Your task to perform on an android device: Open my contact list Image 0: 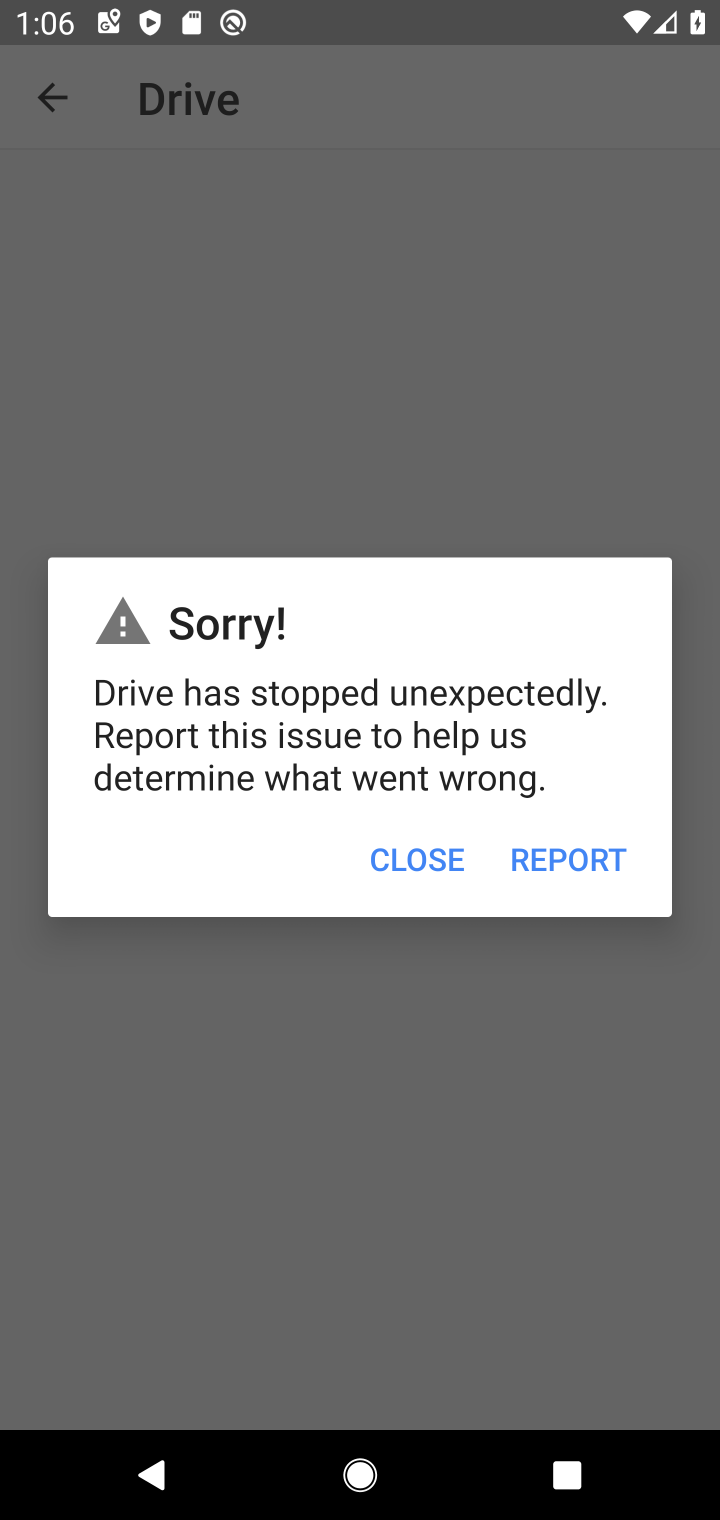
Step 0: click (230, 309)
Your task to perform on an android device: Open my contact list Image 1: 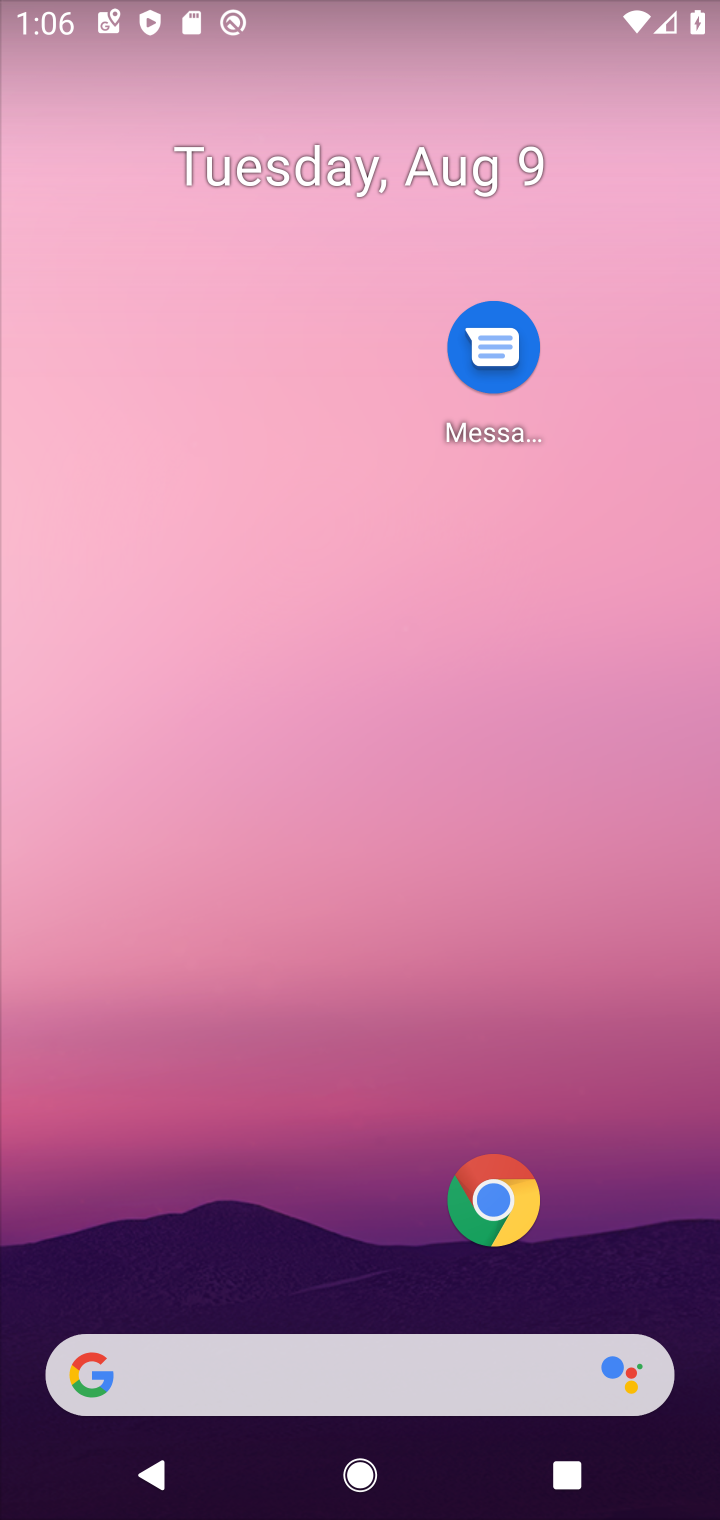
Step 1: click (398, 845)
Your task to perform on an android device: Open my contact list Image 2: 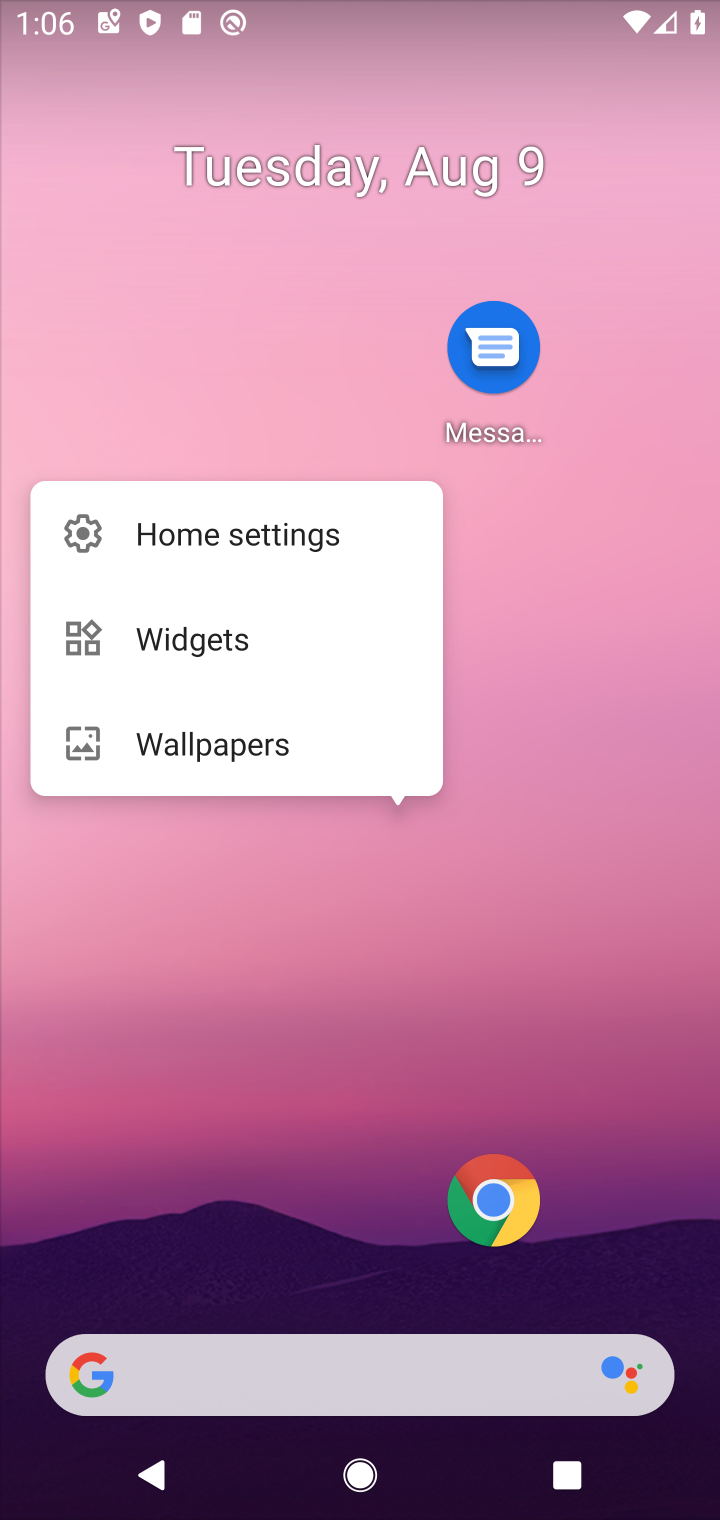
Step 2: click (296, 1156)
Your task to perform on an android device: Open my contact list Image 3: 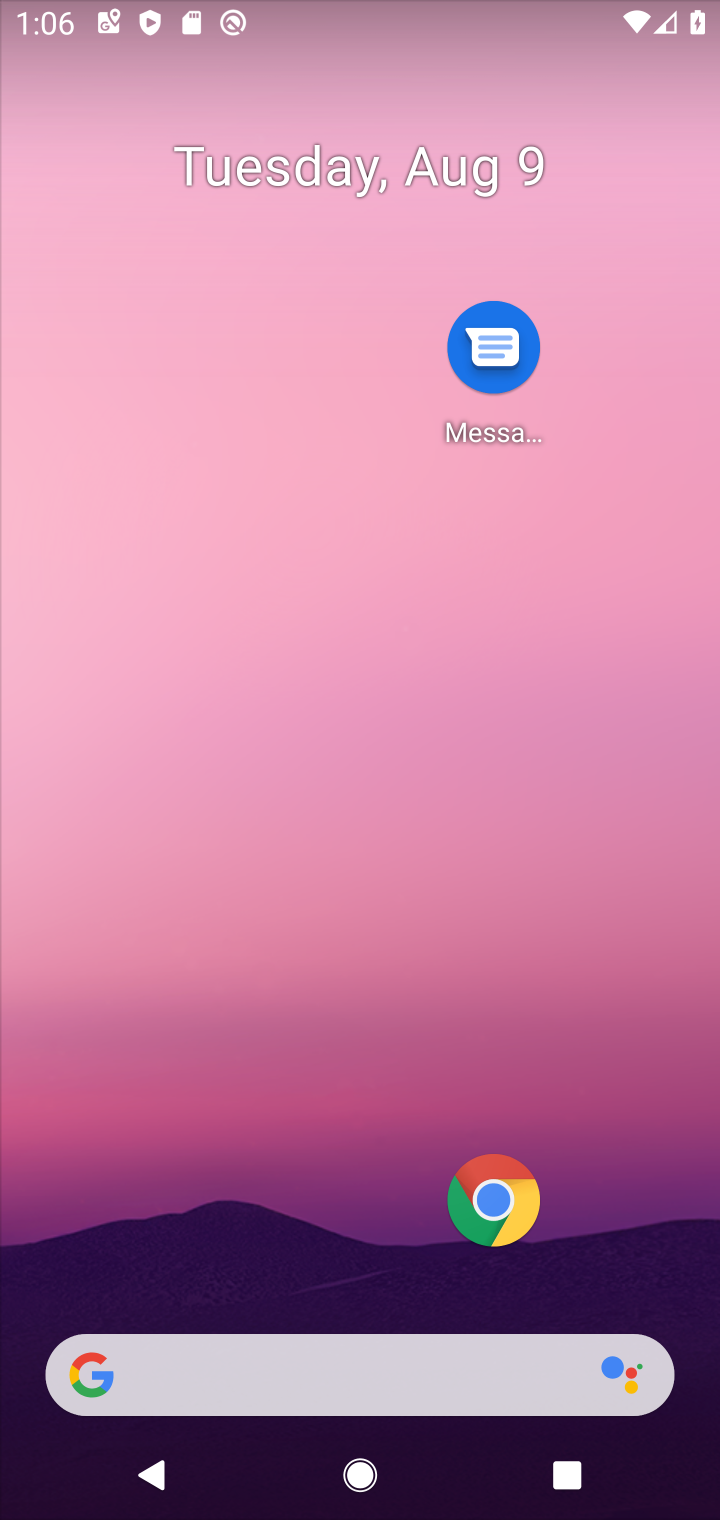
Step 3: drag from (329, 1010) to (415, 188)
Your task to perform on an android device: Open my contact list Image 4: 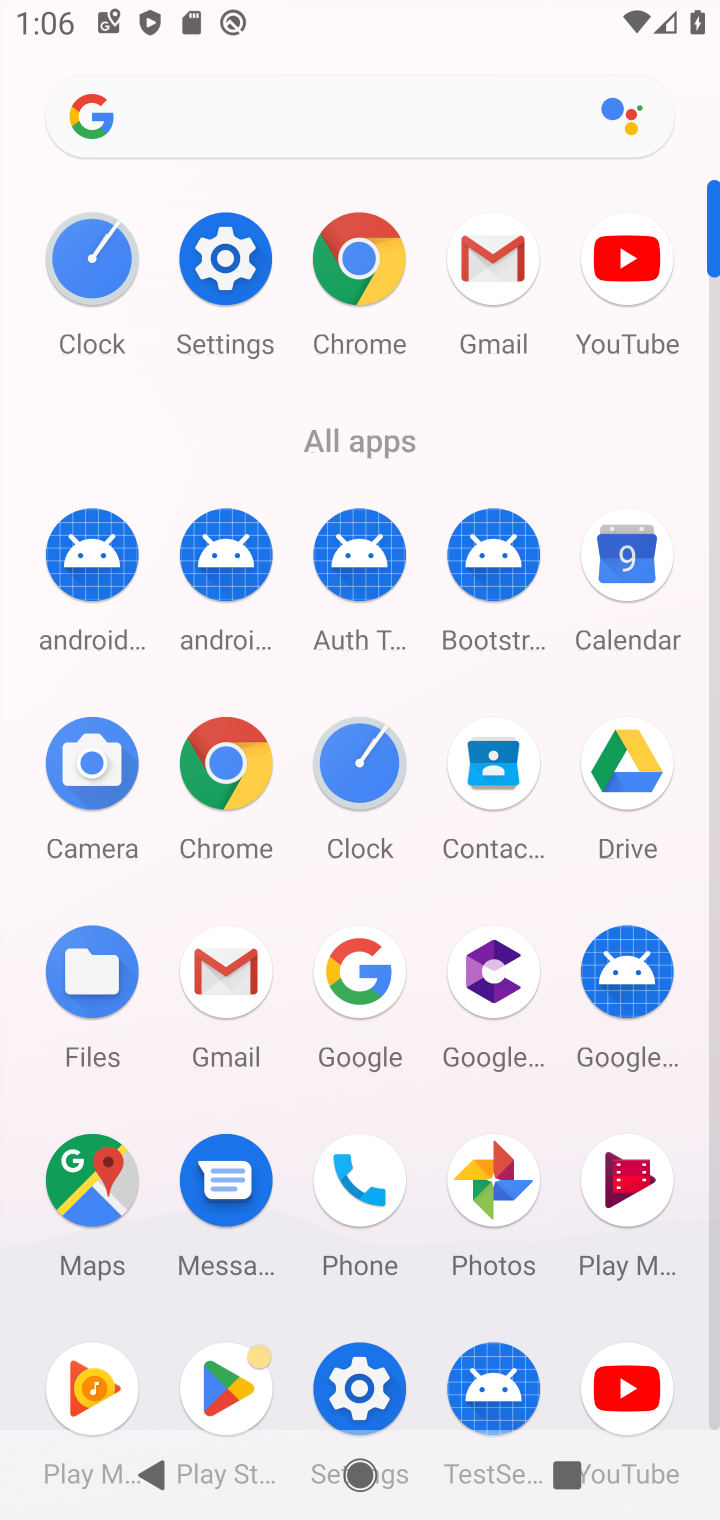
Step 4: click (490, 758)
Your task to perform on an android device: Open my contact list Image 5: 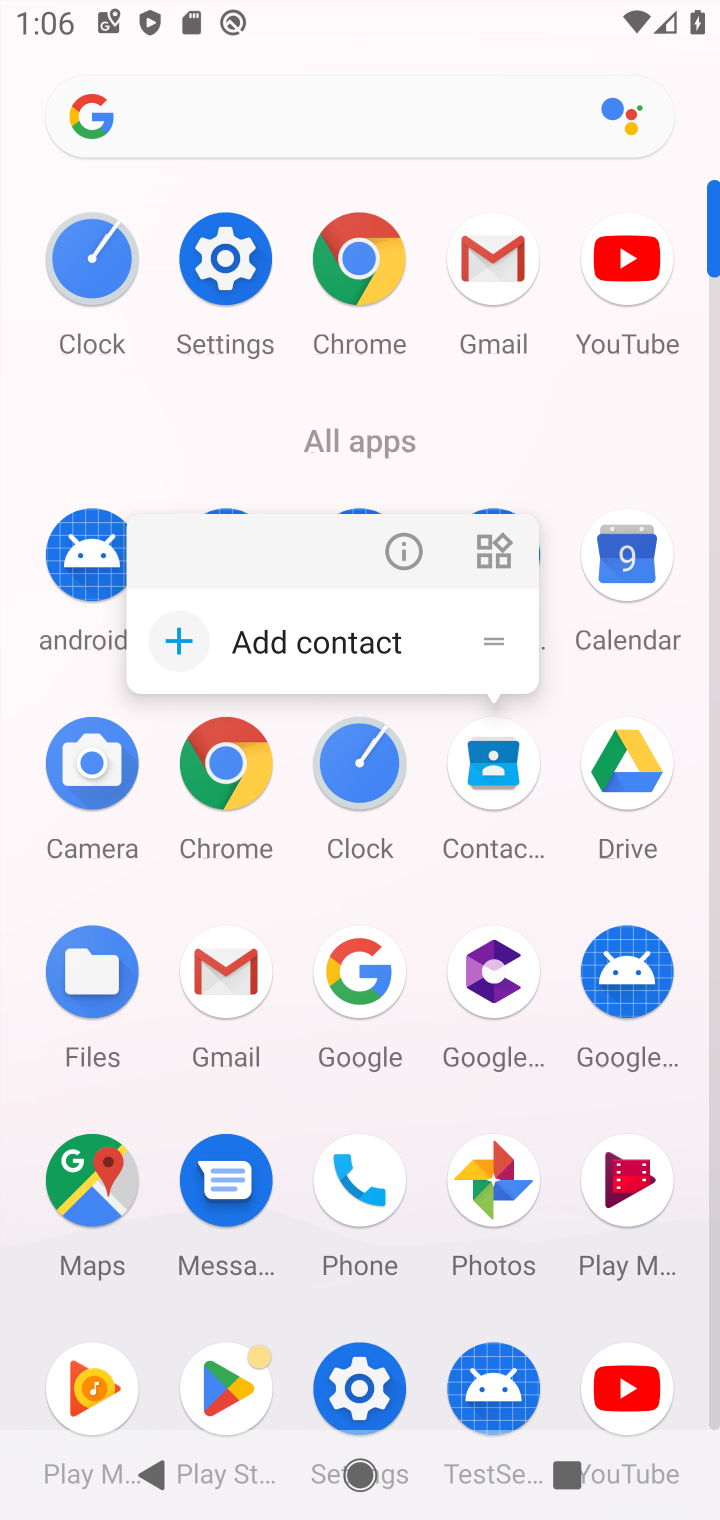
Step 5: click (490, 758)
Your task to perform on an android device: Open my contact list Image 6: 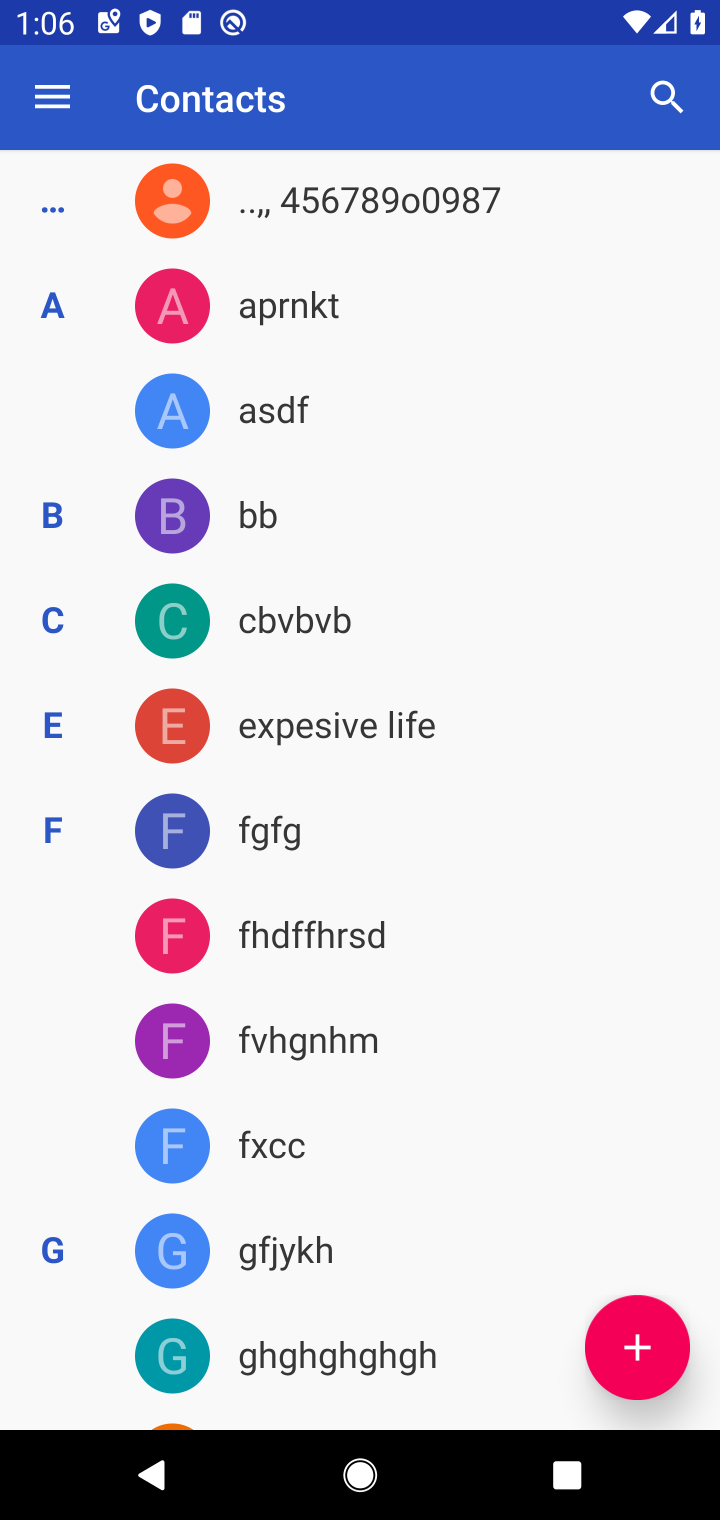
Step 6: task complete